Your task to perform on an android device: create a new album in the google photos Image 0: 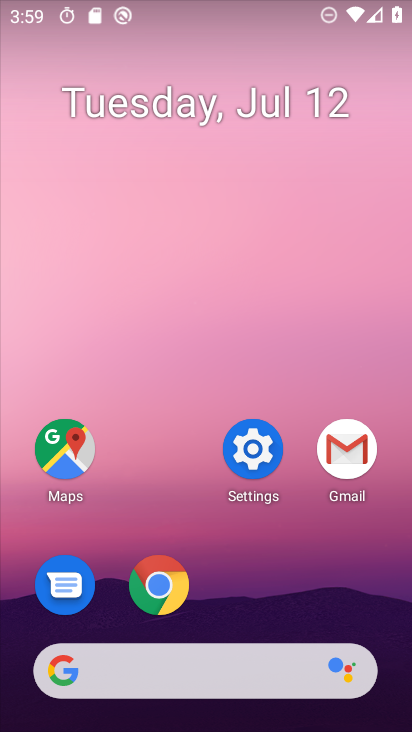
Step 0: drag from (401, 708) to (376, 173)
Your task to perform on an android device: create a new album in the google photos Image 1: 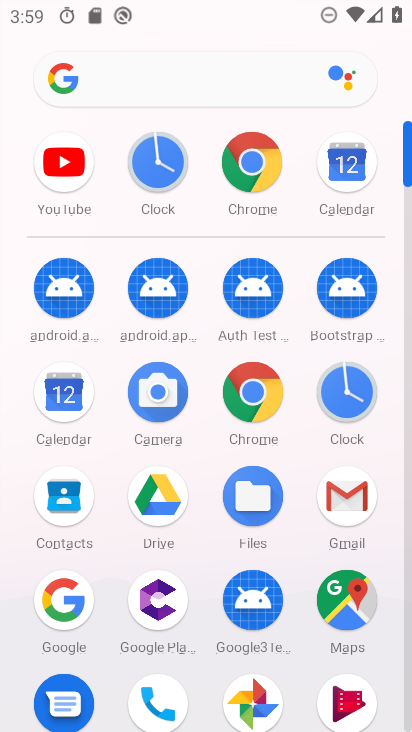
Step 1: drag from (300, 631) to (306, 345)
Your task to perform on an android device: create a new album in the google photos Image 2: 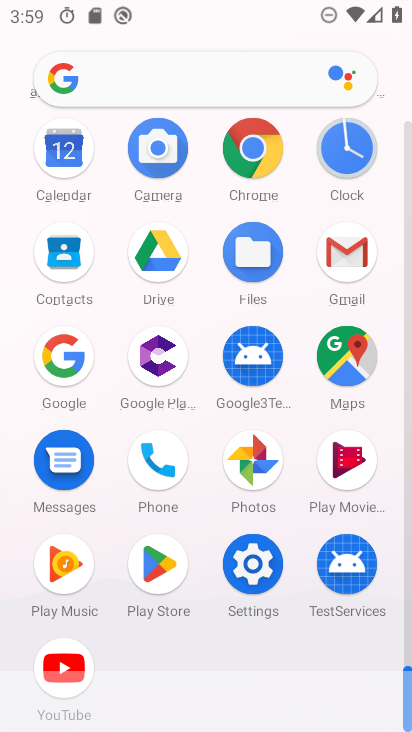
Step 2: click (244, 450)
Your task to perform on an android device: create a new album in the google photos Image 3: 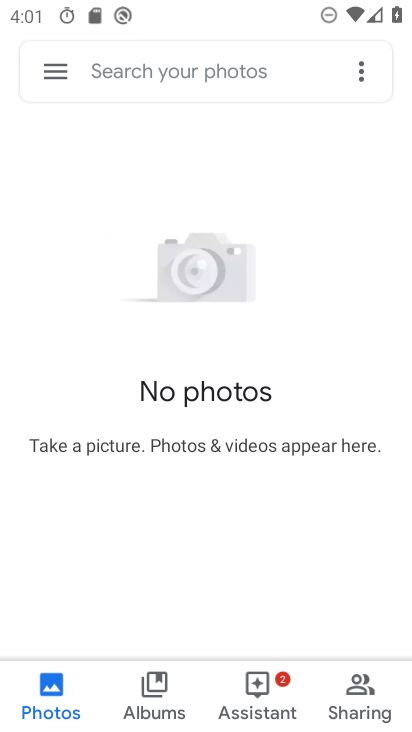
Step 3: task complete